Your task to perform on an android device: open device folders in google photos Image 0: 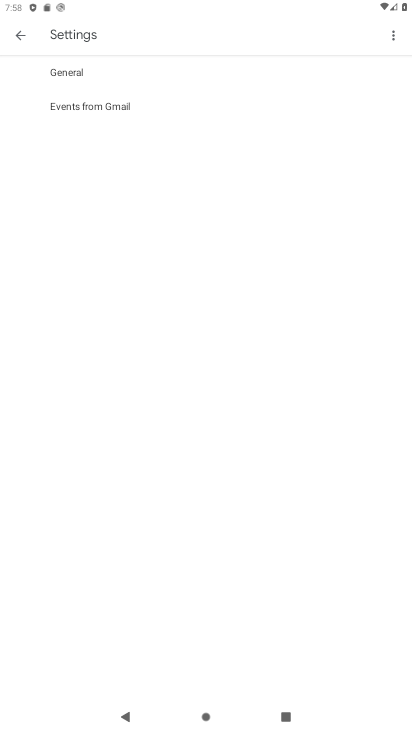
Step 0: drag from (230, 604) to (397, 124)
Your task to perform on an android device: open device folders in google photos Image 1: 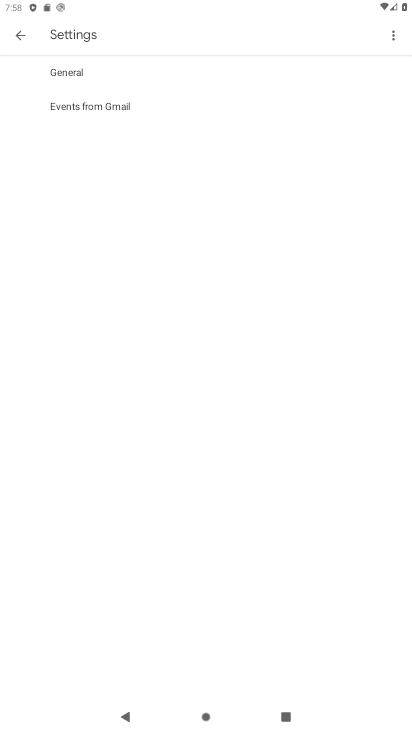
Step 1: drag from (230, 555) to (256, 413)
Your task to perform on an android device: open device folders in google photos Image 2: 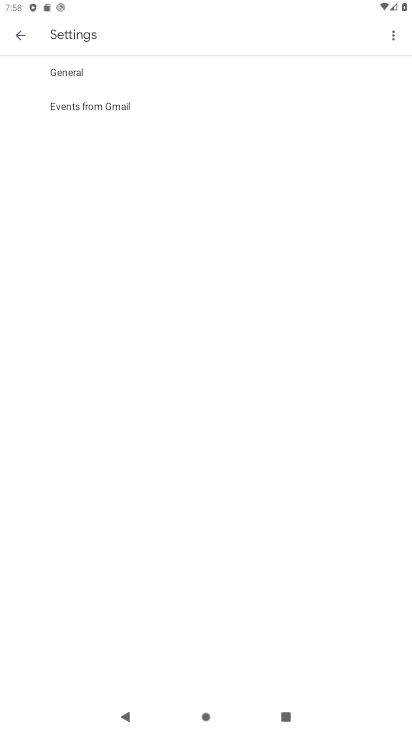
Step 2: click (22, 30)
Your task to perform on an android device: open device folders in google photos Image 3: 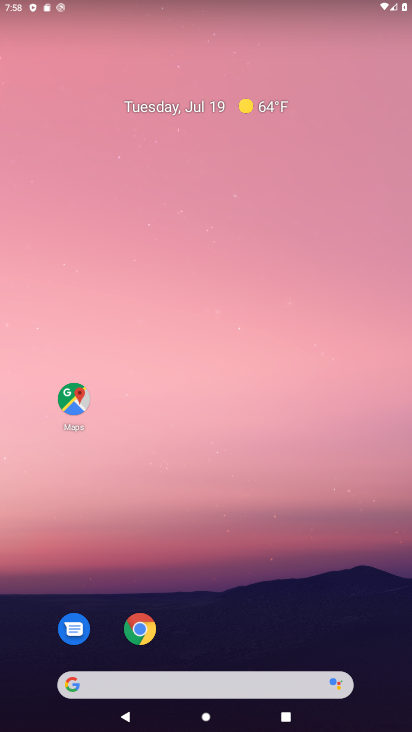
Step 3: drag from (215, 540) to (234, 24)
Your task to perform on an android device: open device folders in google photos Image 4: 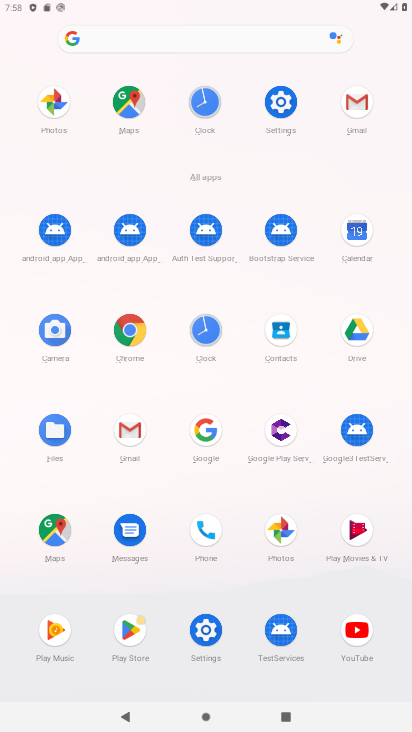
Step 4: click (279, 525)
Your task to perform on an android device: open device folders in google photos Image 5: 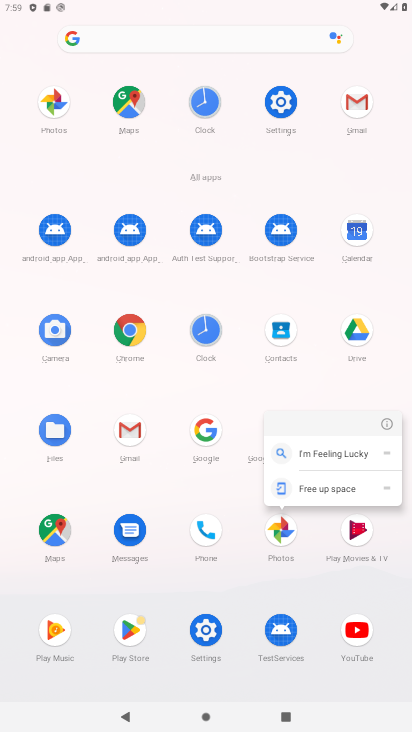
Step 5: click (390, 415)
Your task to perform on an android device: open device folders in google photos Image 6: 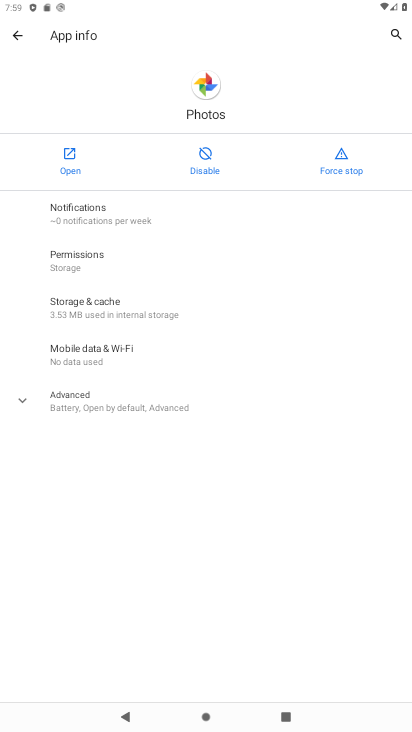
Step 6: click (66, 162)
Your task to perform on an android device: open device folders in google photos Image 7: 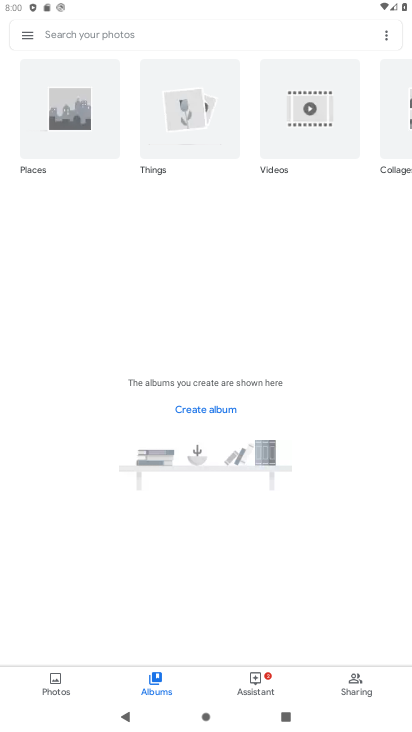
Step 7: drag from (203, 542) to (227, 323)
Your task to perform on an android device: open device folders in google photos Image 8: 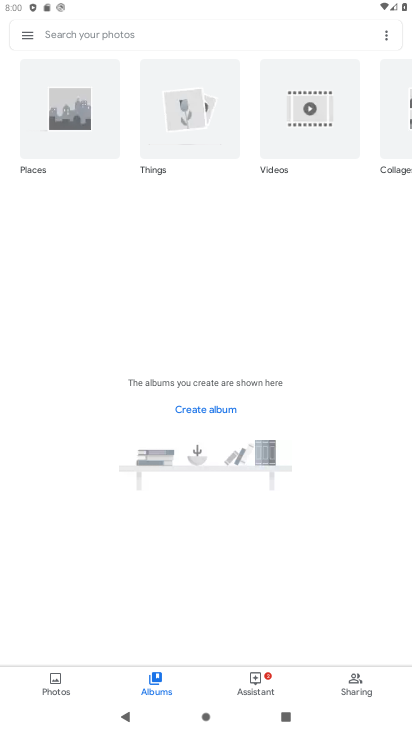
Step 8: click (17, 35)
Your task to perform on an android device: open device folders in google photos Image 9: 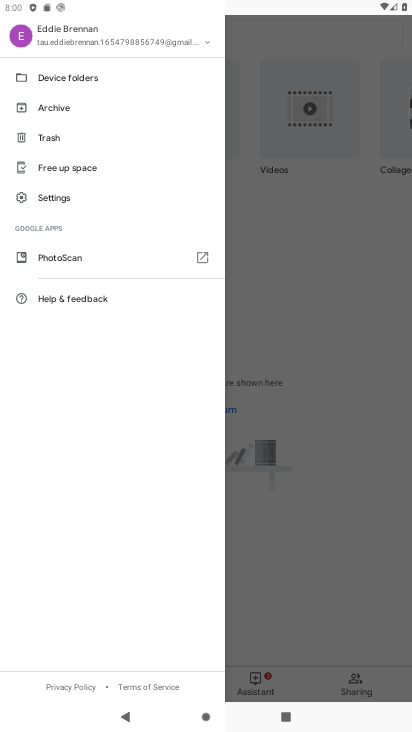
Step 9: click (69, 80)
Your task to perform on an android device: open device folders in google photos Image 10: 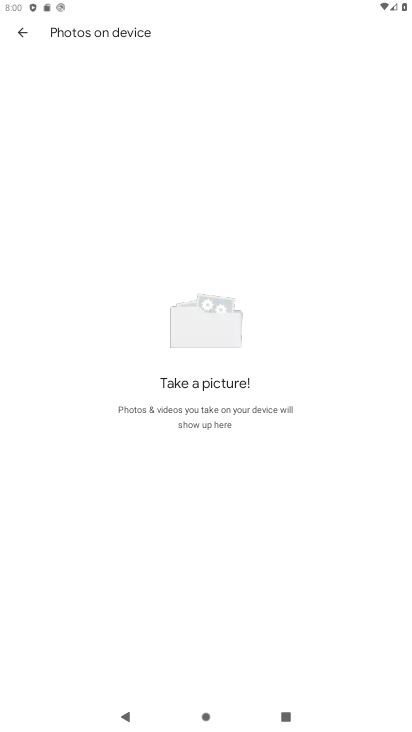
Step 10: task complete